Your task to perform on an android device: change the clock display to analog Image 0: 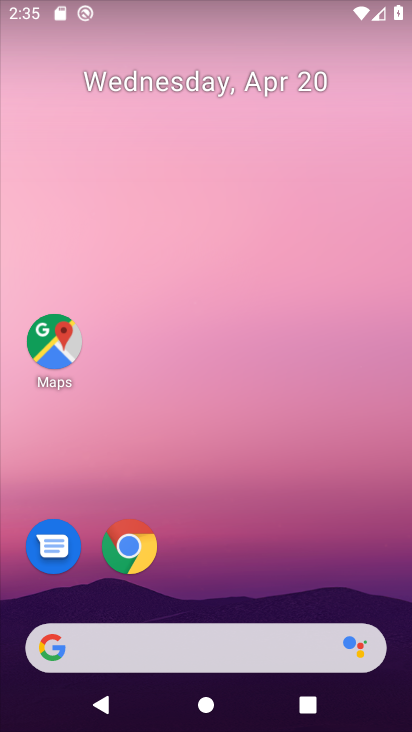
Step 0: drag from (263, 603) to (259, 115)
Your task to perform on an android device: change the clock display to analog Image 1: 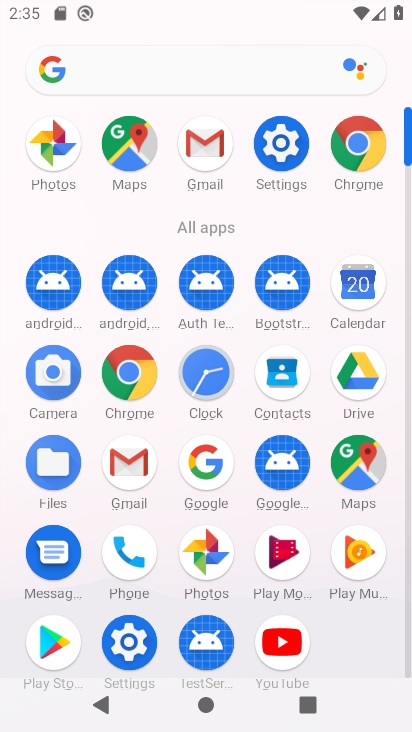
Step 1: click (208, 366)
Your task to perform on an android device: change the clock display to analog Image 2: 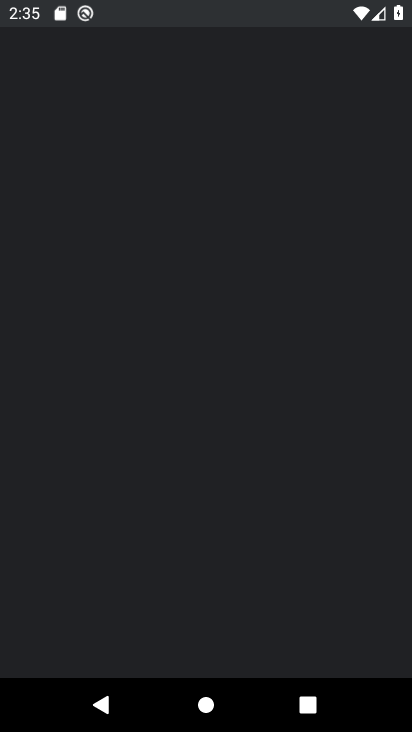
Step 2: click (208, 366)
Your task to perform on an android device: change the clock display to analog Image 3: 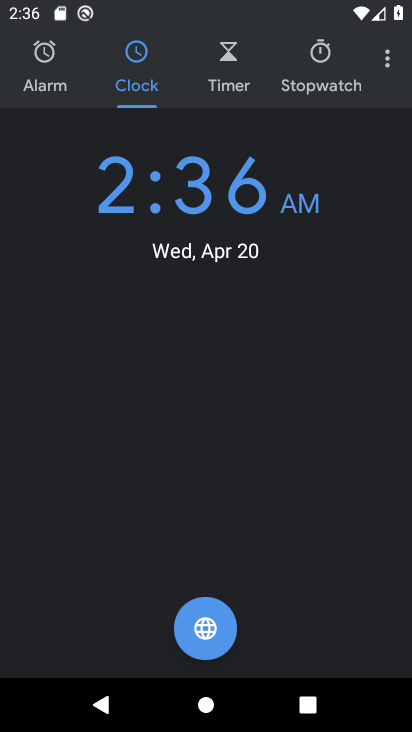
Step 3: click (381, 63)
Your task to perform on an android device: change the clock display to analog Image 4: 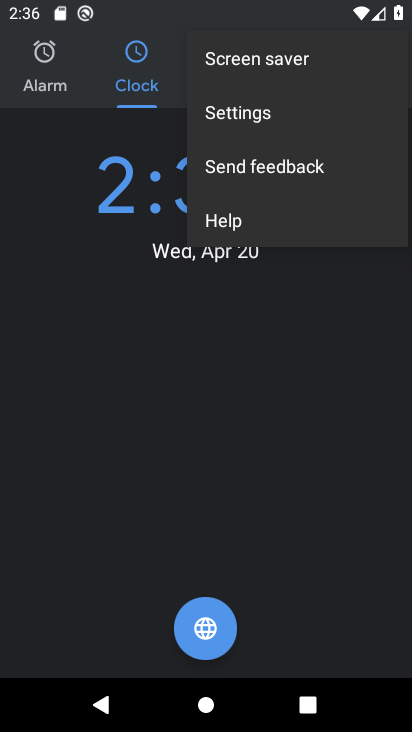
Step 4: click (265, 113)
Your task to perform on an android device: change the clock display to analog Image 5: 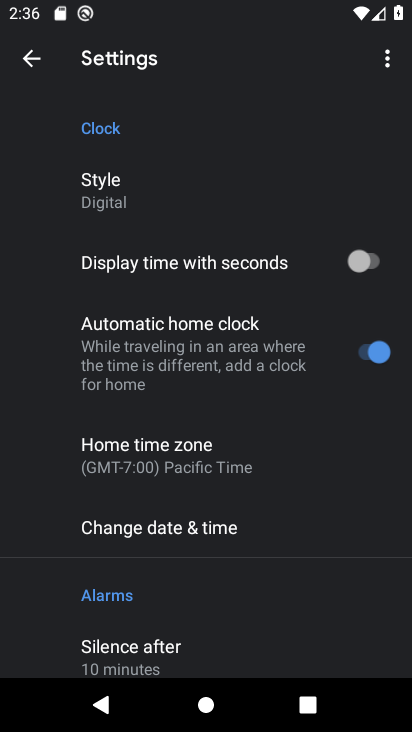
Step 5: click (154, 189)
Your task to perform on an android device: change the clock display to analog Image 6: 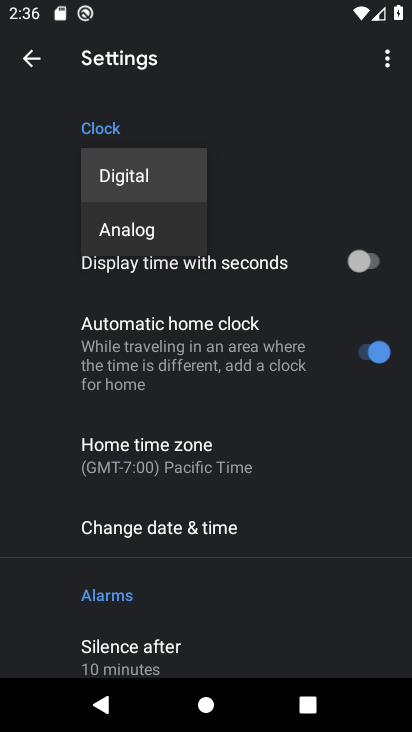
Step 6: click (143, 241)
Your task to perform on an android device: change the clock display to analog Image 7: 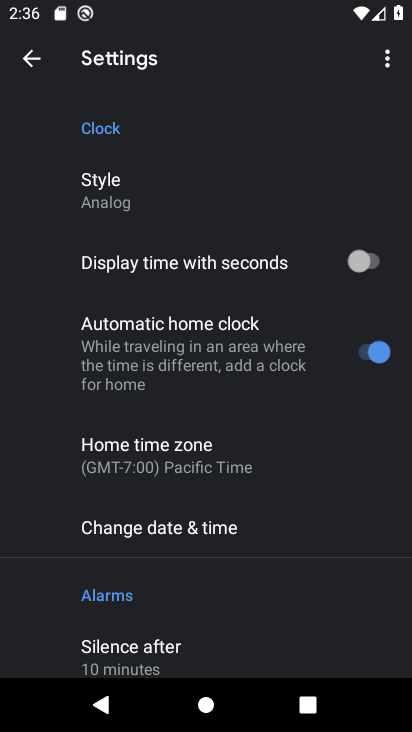
Step 7: task complete